Your task to perform on an android device: toggle improve location accuracy Image 0: 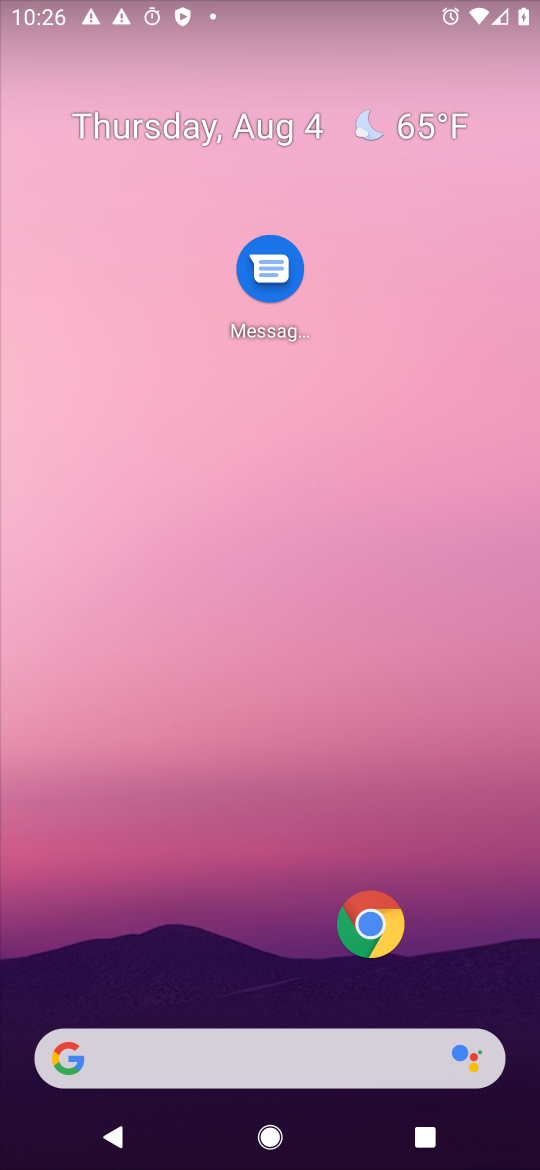
Step 0: click (371, 378)
Your task to perform on an android device: toggle improve location accuracy Image 1: 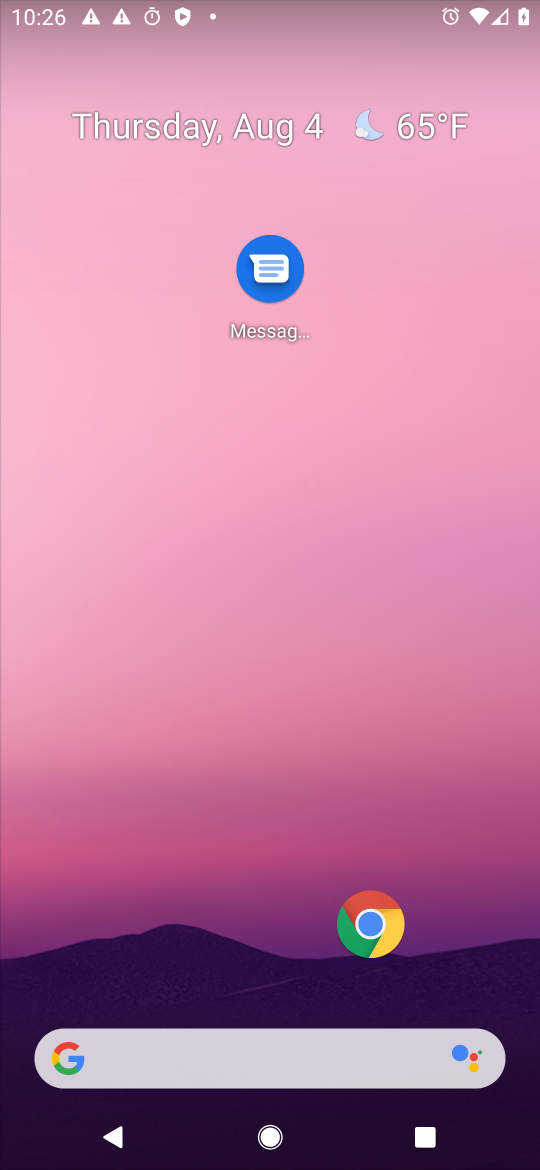
Step 1: drag from (248, 1024) to (312, 110)
Your task to perform on an android device: toggle improve location accuracy Image 2: 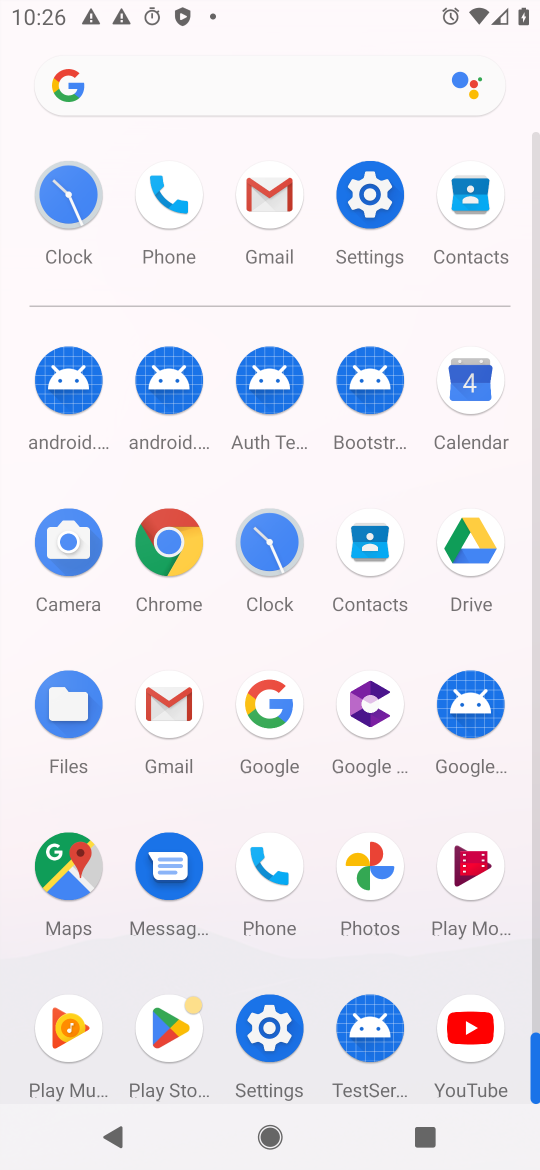
Step 2: drag from (220, 927) to (291, 107)
Your task to perform on an android device: toggle improve location accuracy Image 3: 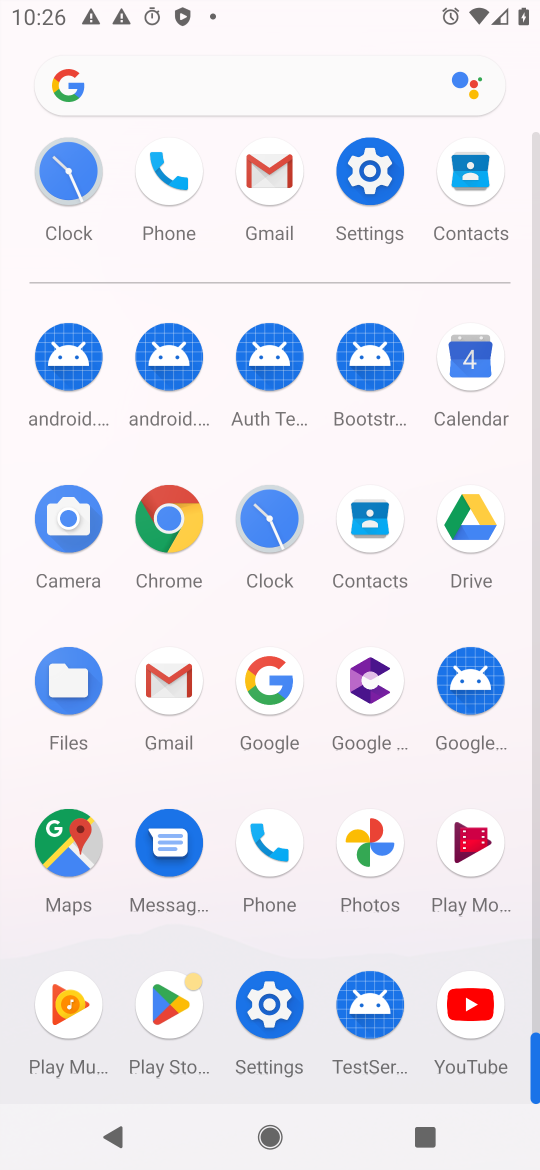
Step 3: click (264, 995)
Your task to perform on an android device: toggle improve location accuracy Image 4: 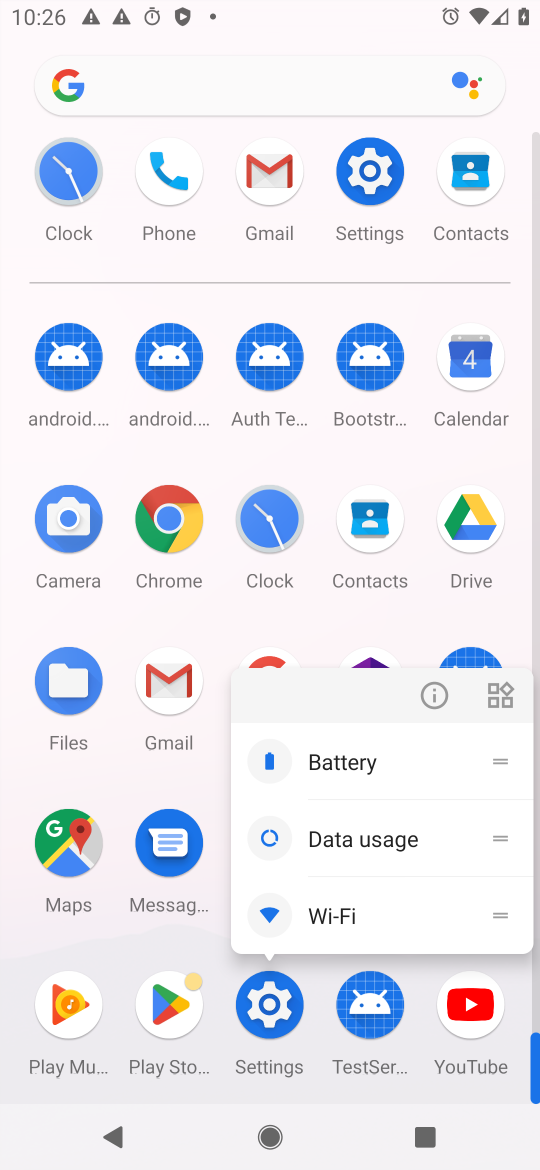
Step 4: click (429, 692)
Your task to perform on an android device: toggle improve location accuracy Image 5: 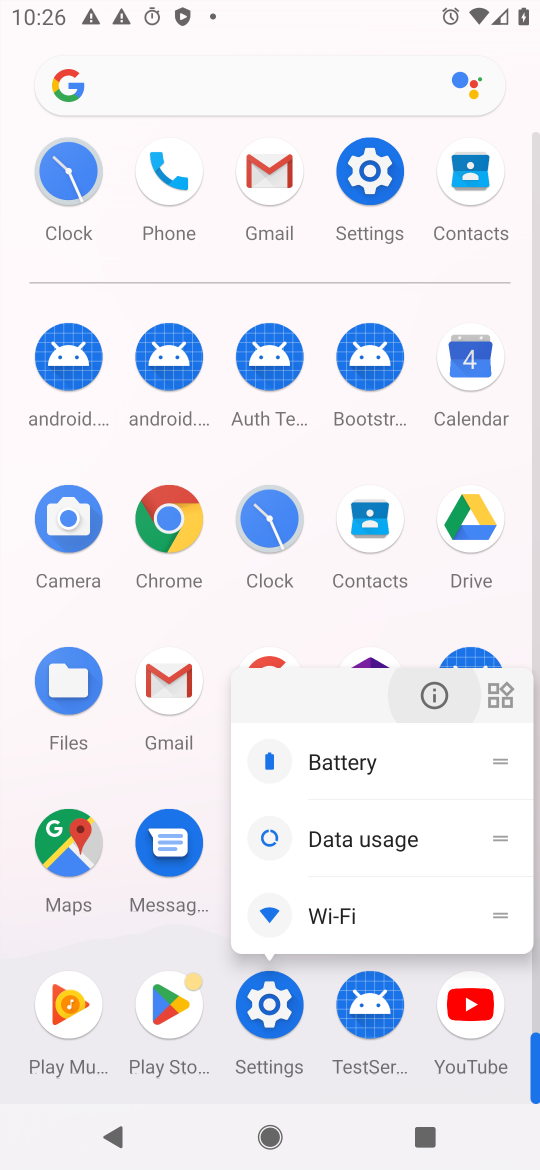
Step 5: click (427, 690)
Your task to perform on an android device: toggle improve location accuracy Image 6: 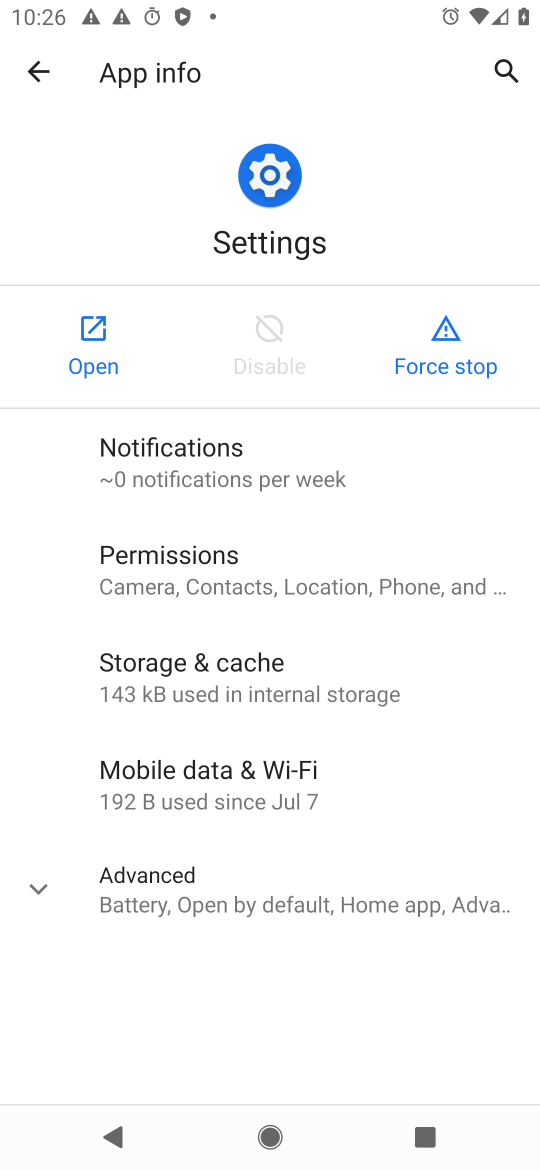
Step 6: click (80, 337)
Your task to perform on an android device: toggle improve location accuracy Image 7: 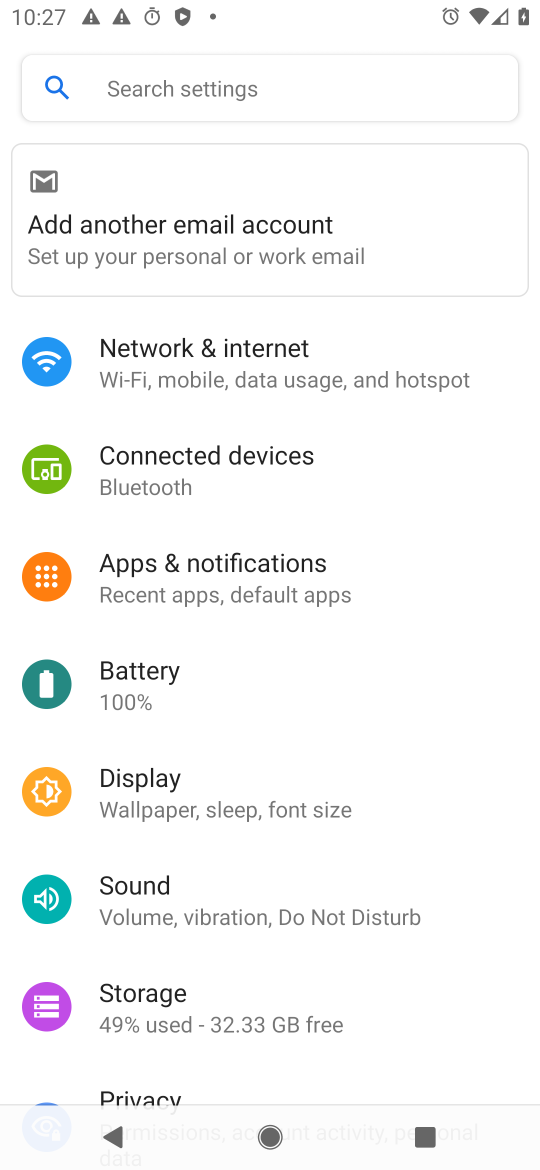
Step 7: drag from (246, 851) to (223, 434)
Your task to perform on an android device: toggle improve location accuracy Image 8: 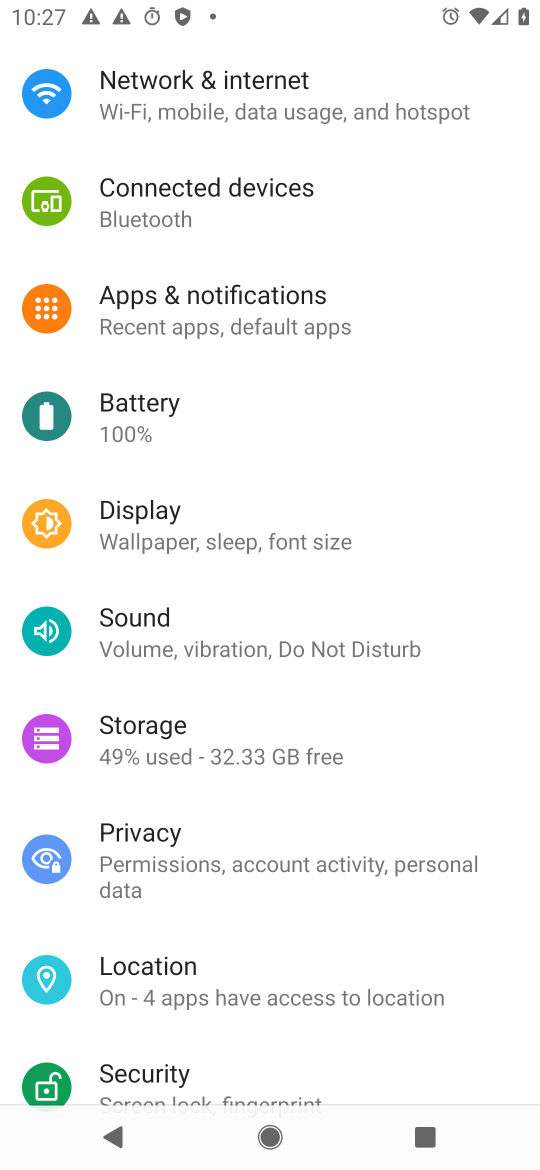
Step 8: drag from (226, 1004) to (270, 600)
Your task to perform on an android device: toggle improve location accuracy Image 9: 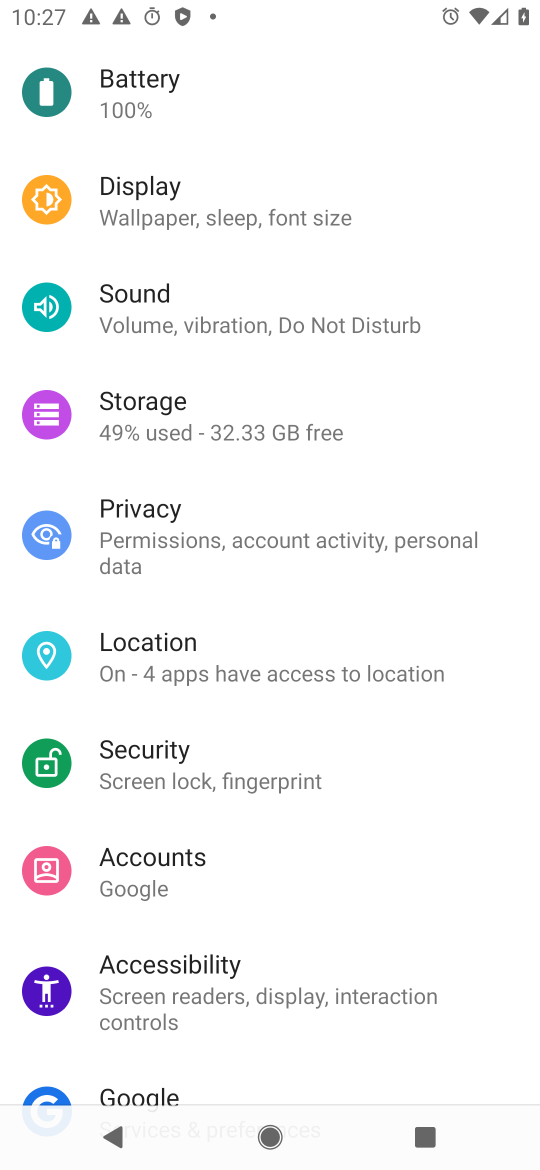
Step 9: click (181, 641)
Your task to perform on an android device: toggle improve location accuracy Image 10: 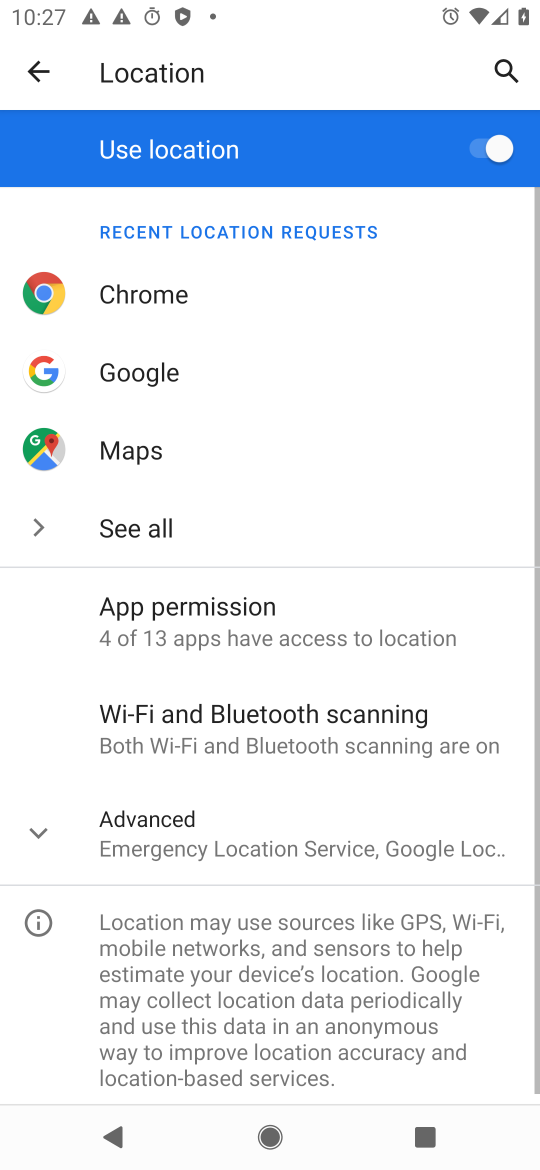
Step 10: click (150, 818)
Your task to perform on an android device: toggle improve location accuracy Image 11: 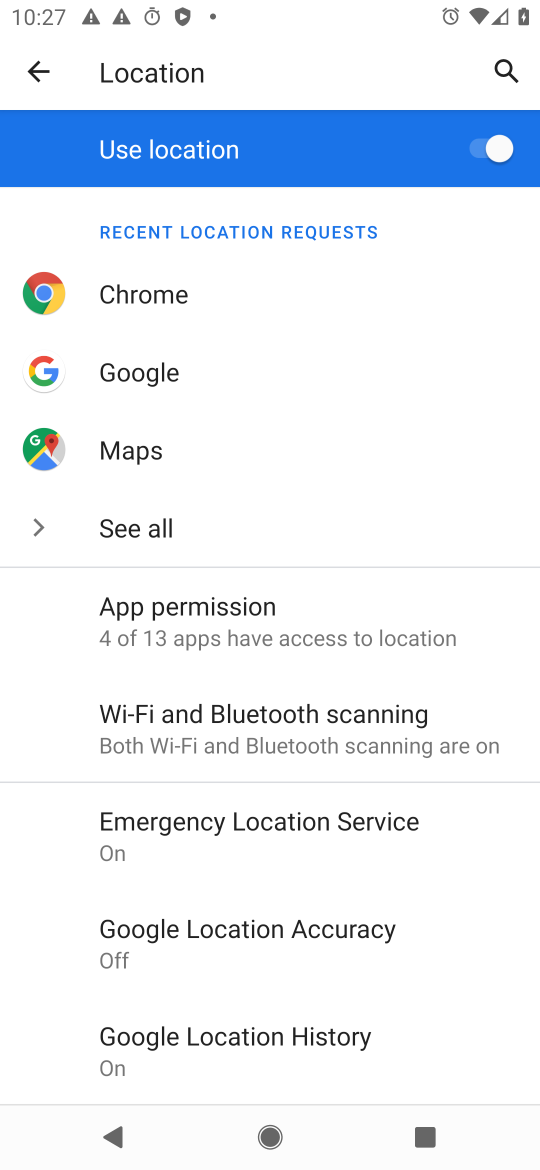
Step 11: click (187, 947)
Your task to perform on an android device: toggle improve location accuracy Image 12: 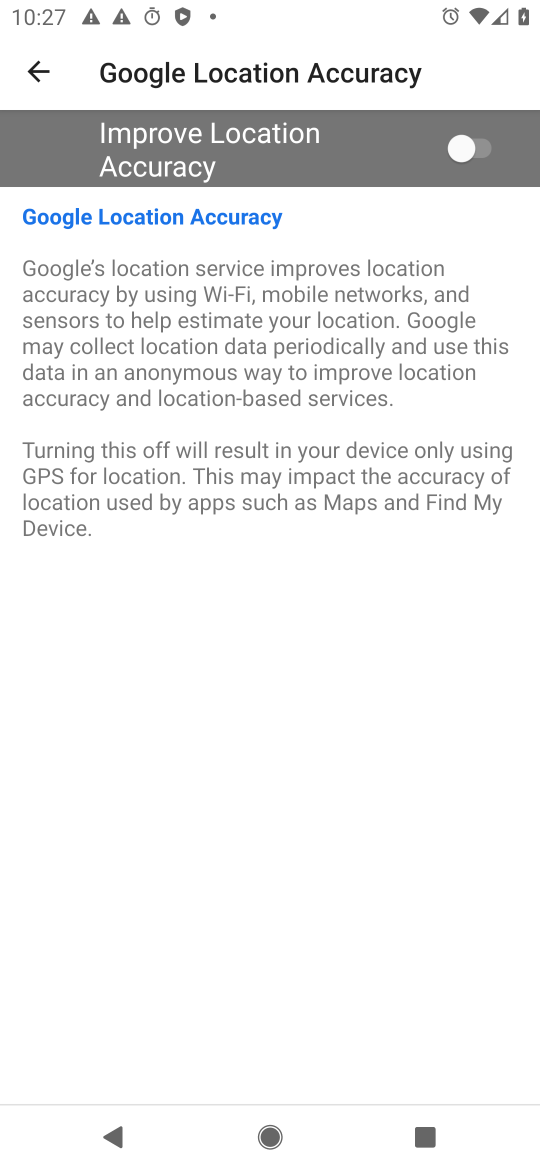
Step 12: click (329, 137)
Your task to perform on an android device: toggle improve location accuracy Image 13: 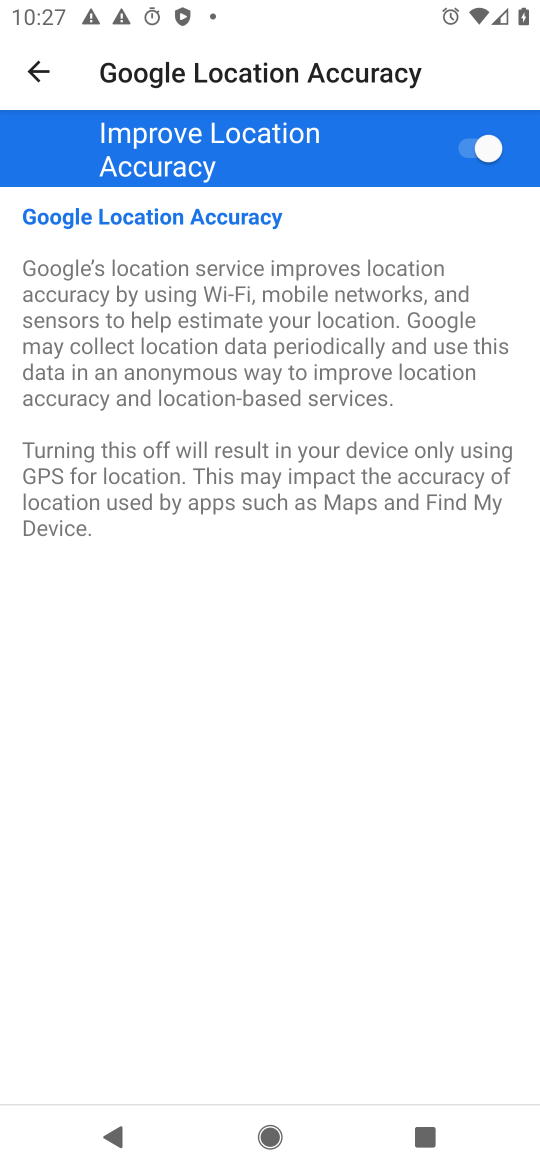
Step 13: task complete